Your task to perform on an android device: Open Youtube and go to "Your channel" Image 0: 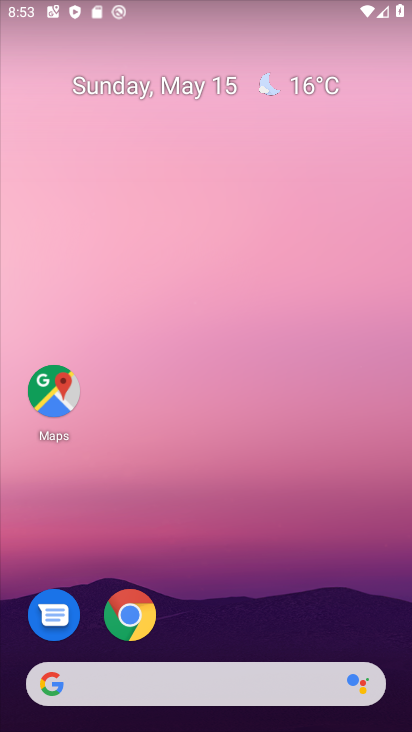
Step 0: drag from (308, 556) to (276, 12)
Your task to perform on an android device: Open Youtube and go to "Your channel" Image 1: 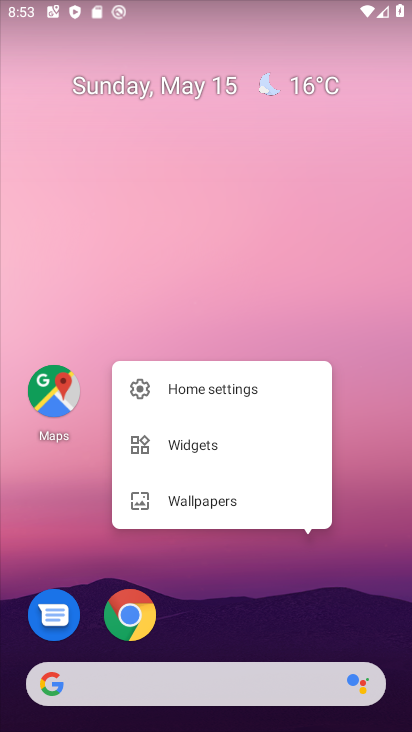
Step 1: drag from (343, 624) to (341, 13)
Your task to perform on an android device: Open Youtube and go to "Your channel" Image 2: 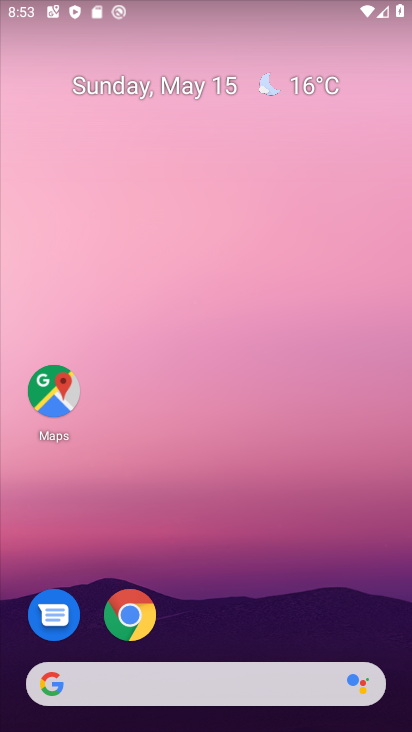
Step 2: drag from (299, 629) to (325, 8)
Your task to perform on an android device: Open Youtube and go to "Your channel" Image 3: 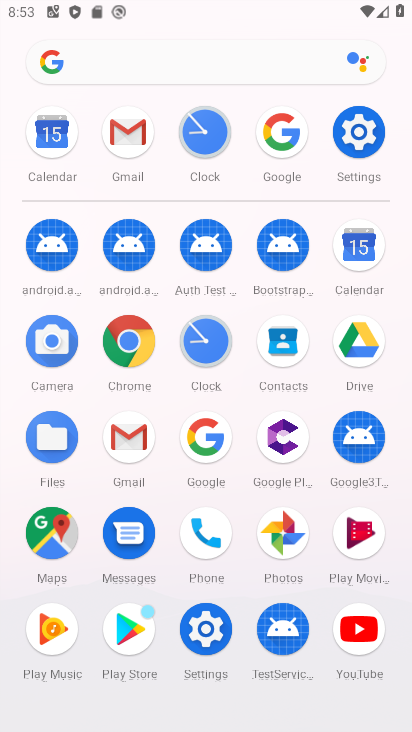
Step 3: drag from (243, 456) to (253, 78)
Your task to perform on an android device: Open Youtube and go to "Your channel" Image 4: 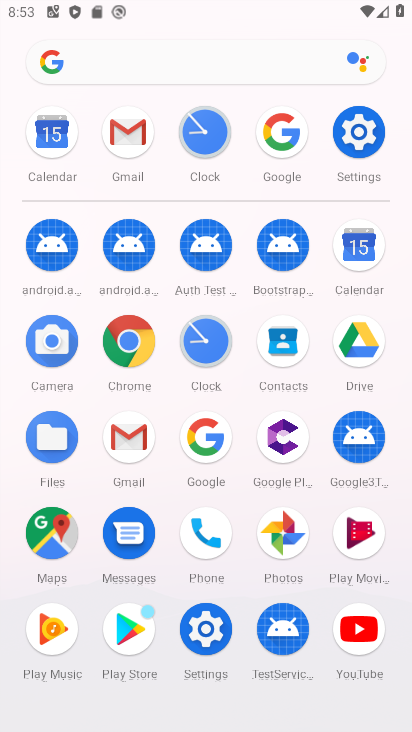
Step 4: click (367, 628)
Your task to perform on an android device: Open Youtube and go to "Your channel" Image 5: 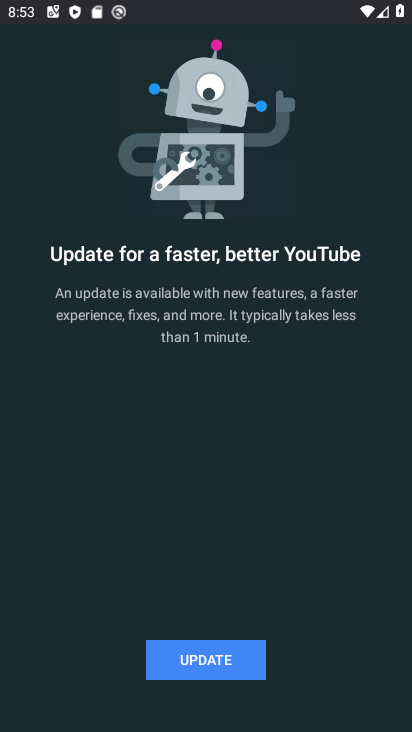
Step 5: click (228, 668)
Your task to perform on an android device: Open Youtube and go to "Your channel" Image 6: 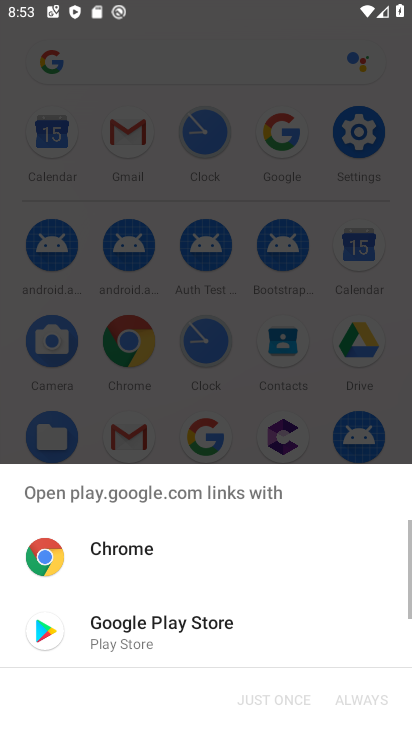
Step 6: click (166, 623)
Your task to perform on an android device: Open Youtube and go to "Your channel" Image 7: 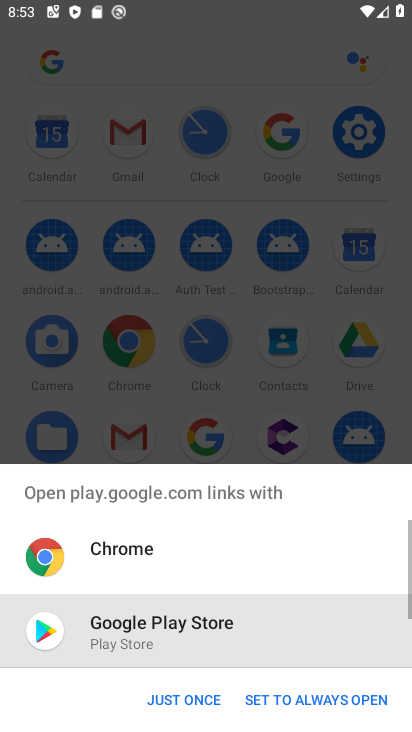
Step 7: click (189, 701)
Your task to perform on an android device: Open Youtube and go to "Your channel" Image 8: 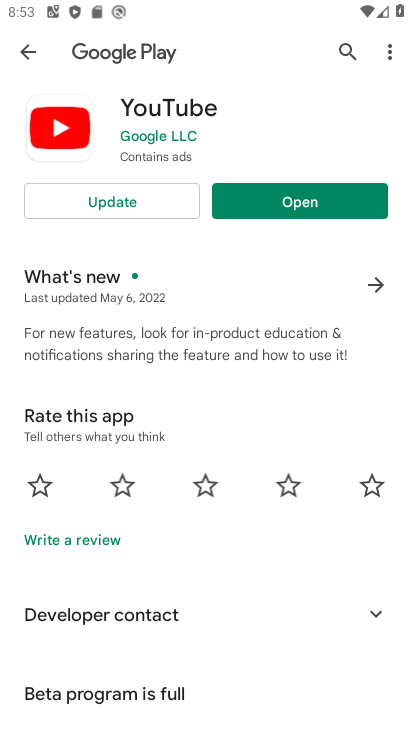
Step 8: click (132, 205)
Your task to perform on an android device: Open Youtube and go to "Your channel" Image 9: 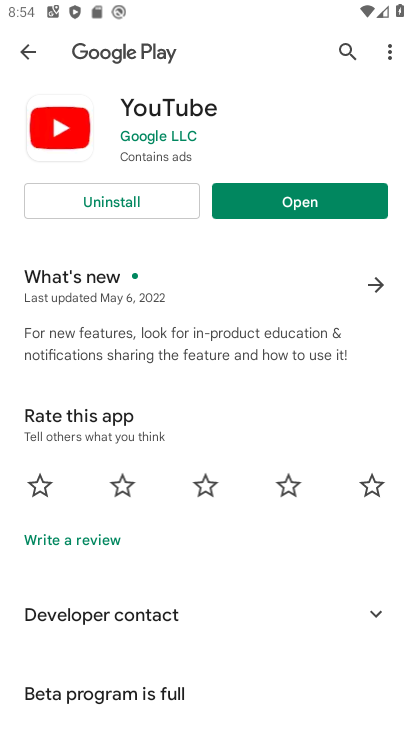
Step 9: click (293, 207)
Your task to perform on an android device: Open Youtube and go to "Your channel" Image 10: 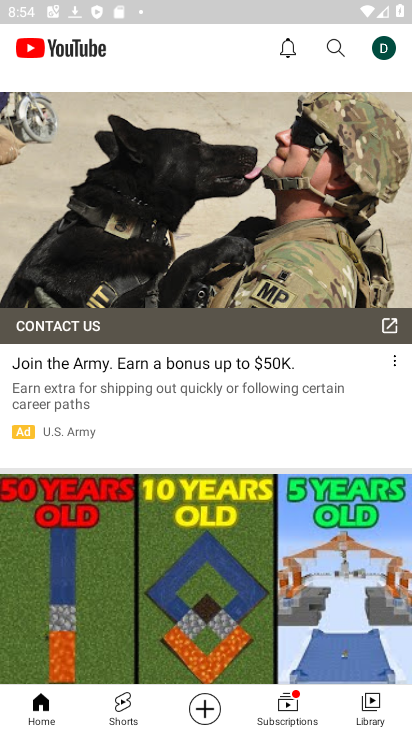
Step 10: click (392, 45)
Your task to perform on an android device: Open Youtube and go to "Your channel" Image 11: 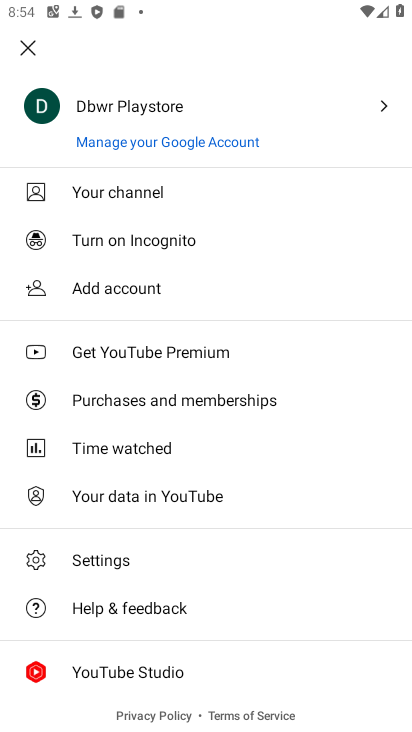
Step 11: click (101, 199)
Your task to perform on an android device: Open Youtube and go to "Your channel" Image 12: 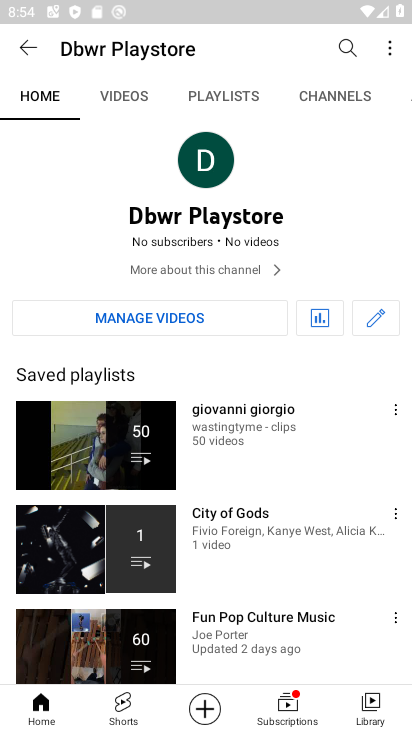
Step 12: task complete